Your task to perform on an android device: Open calendar and show me the fourth week of next month Image 0: 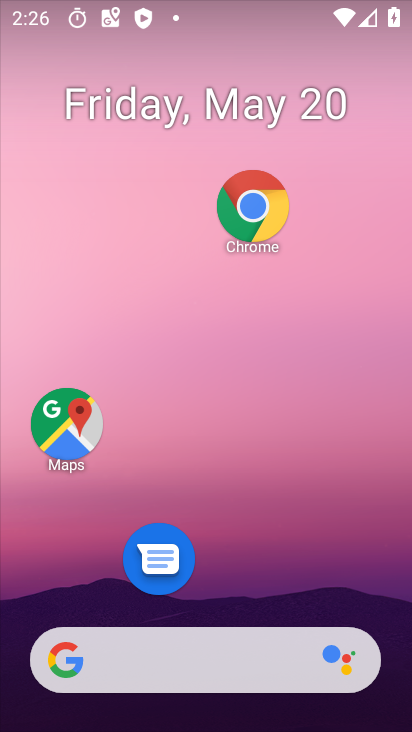
Step 0: drag from (205, 614) to (158, 60)
Your task to perform on an android device: Open calendar and show me the fourth week of next month Image 1: 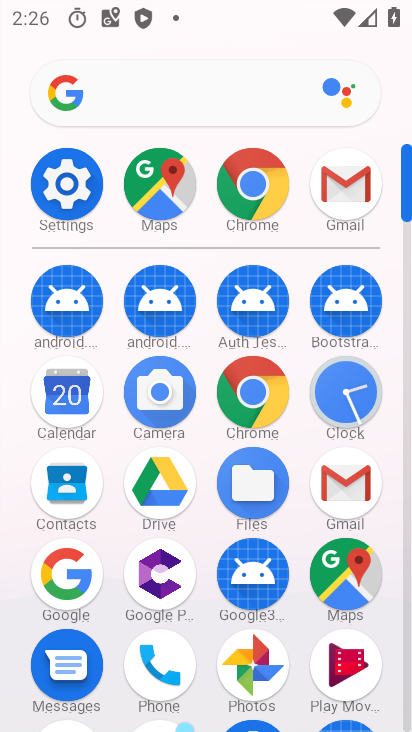
Step 1: click (77, 408)
Your task to perform on an android device: Open calendar and show me the fourth week of next month Image 2: 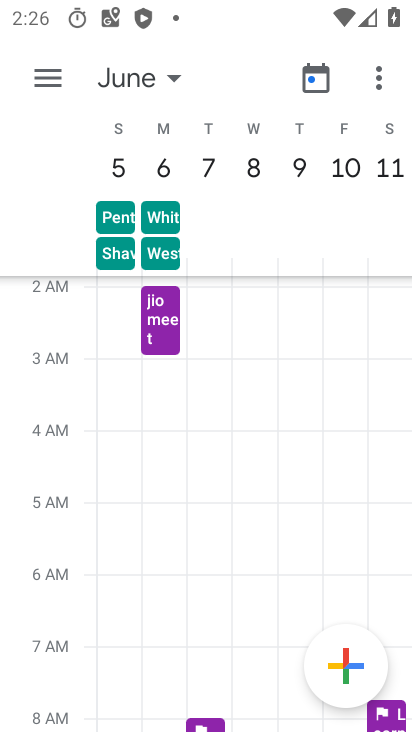
Step 2: task complete